Your task to perform on an android device: Open Google Maps and go to "Timeline" Image 0: 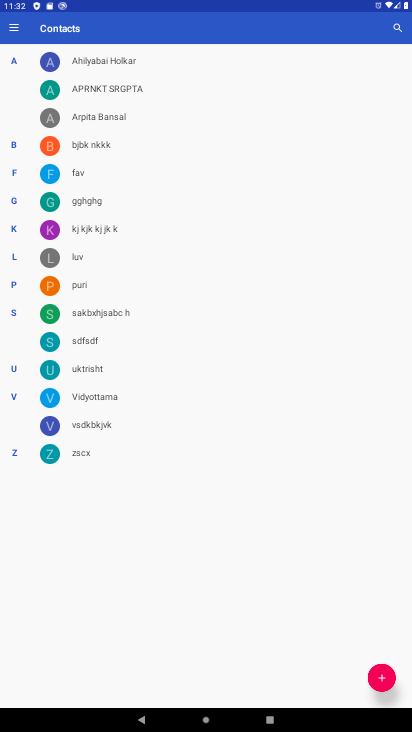
Step 0: press home button
Your task to perform on an android device: Open Google Maps and go to "Timeline" Image 1: 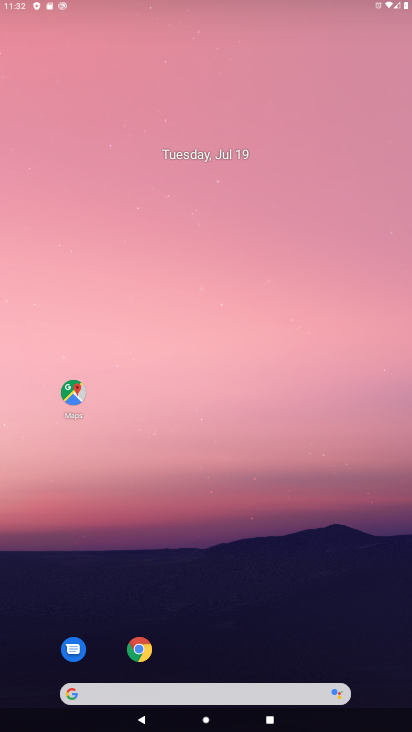
Step 1: drag from (224, 661) to (291, 3)
Your task to perform on an android device: Open Google Maps and go to "Timeline" Image 2: 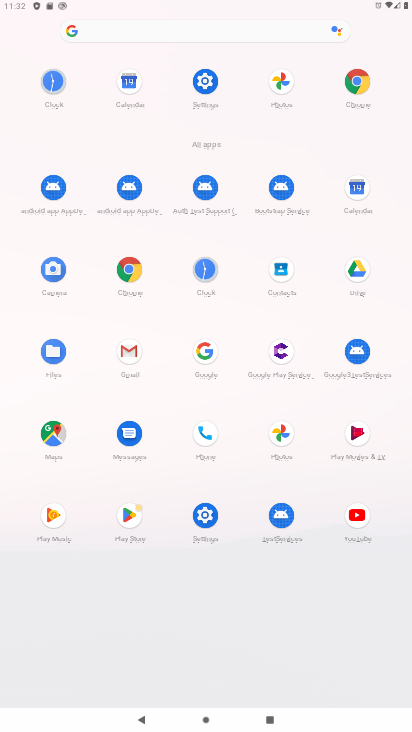
Step 2: click (51, 442)
Your task to perform on an android device: Open Google Maps and go to "Timeline" Image 3: 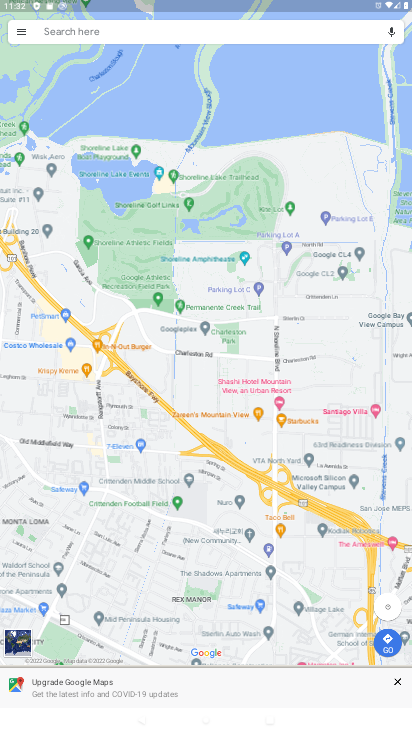
Step 3: click (21, 33)
Your task to perform on an android device: Open Google Maps and go to "Timeline" Image 4: 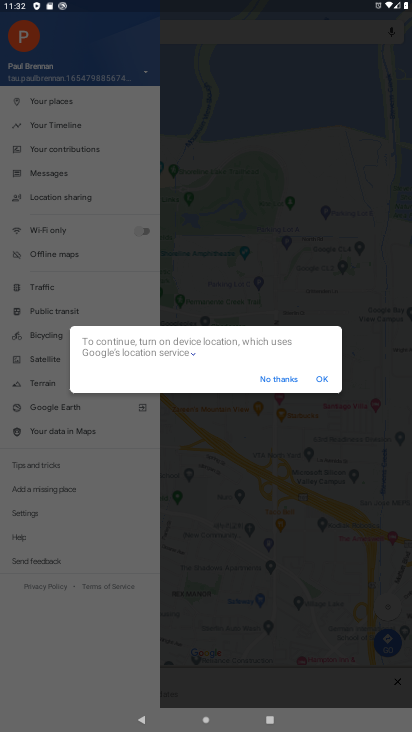
Step 4: click (286, 381)
Your task to perform on an android device: Open Google Maps and go to "Timeline" Image 5: 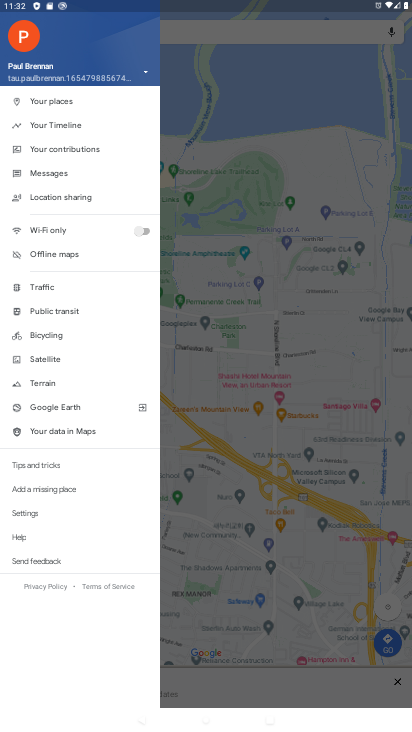
Step 5: click (78, 126)
Your task to perform on an android device: Open Google Maps and go to "Timeline" Image 6: 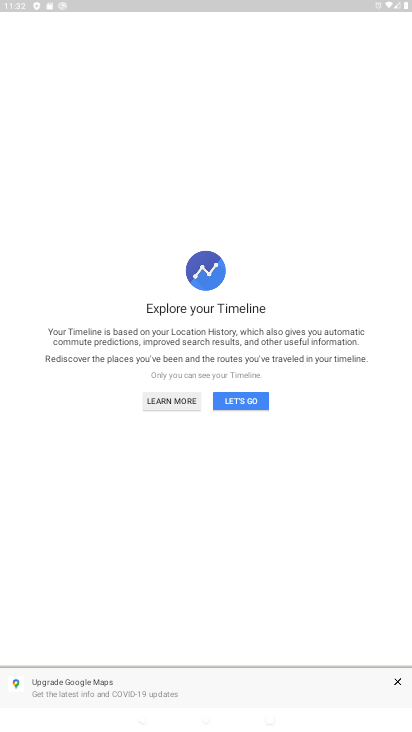
Step 6: click (234, 400)
Your task to perform on an android device: Open Google Maps and go to "Timeline" Image 7: 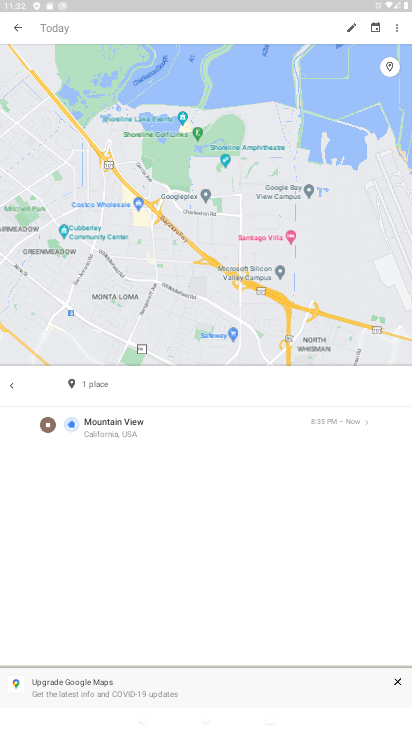
Step 7: task complete